Your task to perform on an android device: open a new tab in the chrome app Image 0: 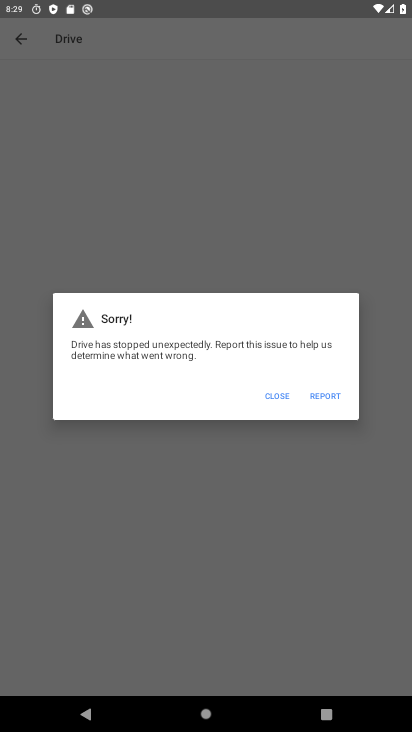
Step 0: press home button
Your task to perform on an android device: open a new tab in the chrome app Image 1: 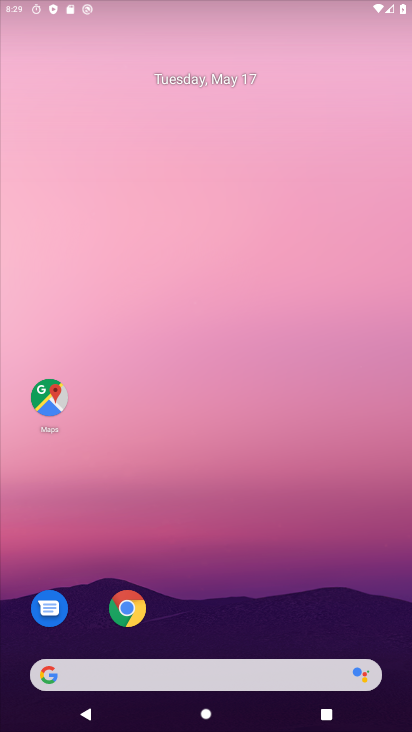
Step 1: drag from (338, 584) to (288, 184)
Your task to perform on an android device: open a new tab in the chrome app Image 2: 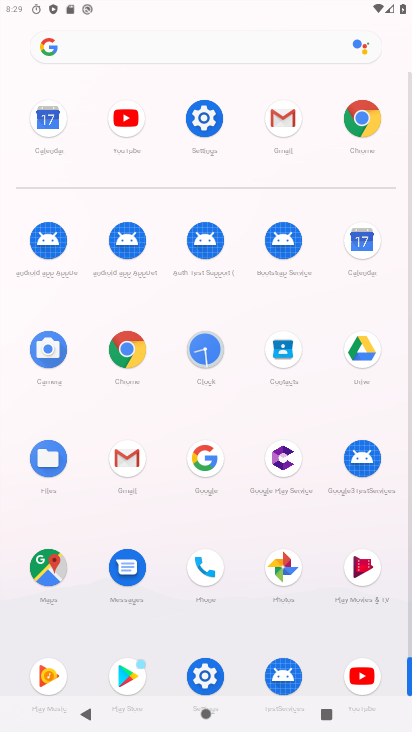
Step 2: click (125, 342)
Your task to perform on an android device: open a new tab in the chrome app Image 3: 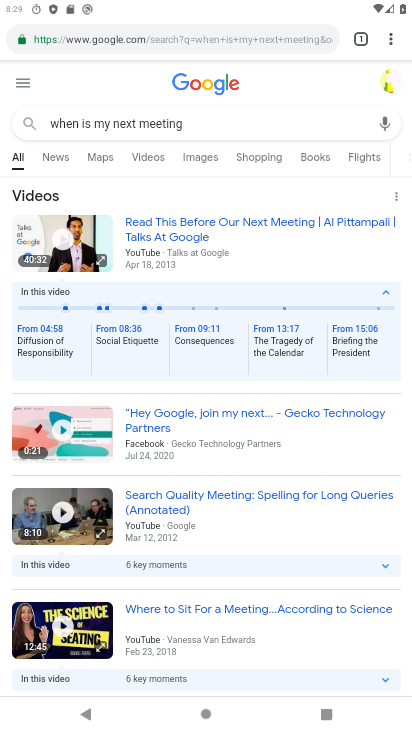
Step 3: click (367, 40)
Your task to perform on an android device: open a new tab in the chrome app Image 4: 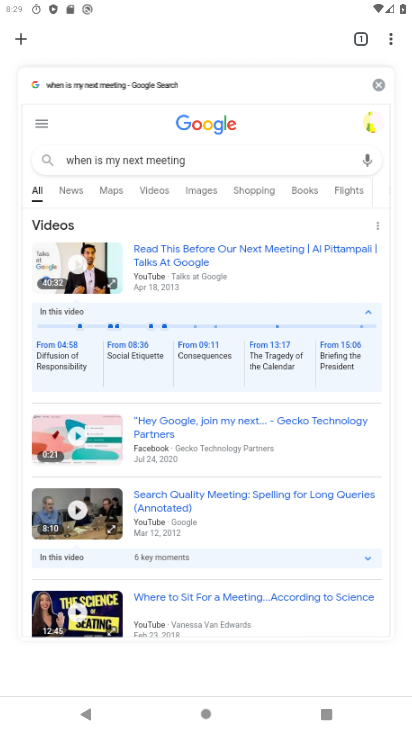
Step 4: click (20, 38)
Your task to perform on an android device: open a new tab in the chrome app Image 5: 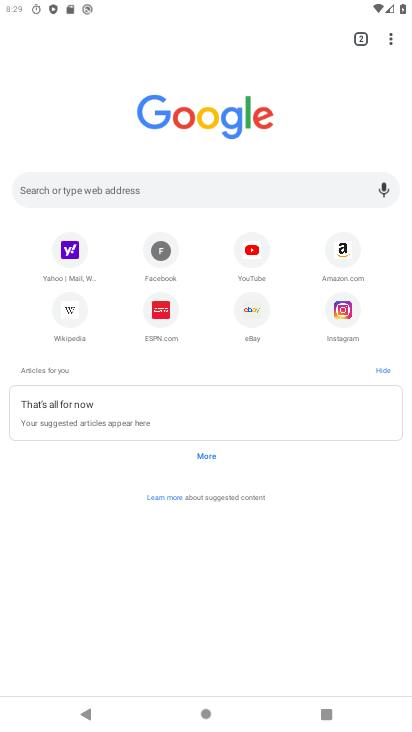
Step 5: task complete